Your task to perform on an android device: Go to display settings Image 0: 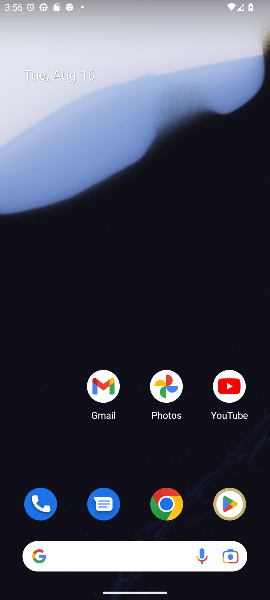
Step 0: drag from (140, 475) to (137, 7)
Your task to perform on an android device: Go to display settings Image 1: 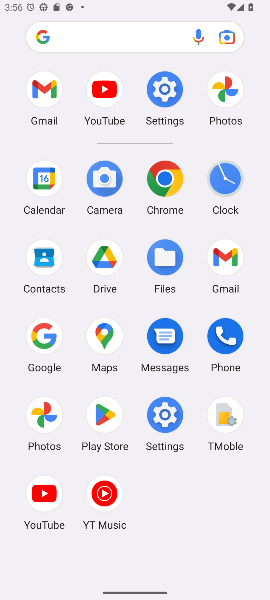
Step 1: click (164, 86)
Your task to perform on an android device: Go to display settings Image 2: 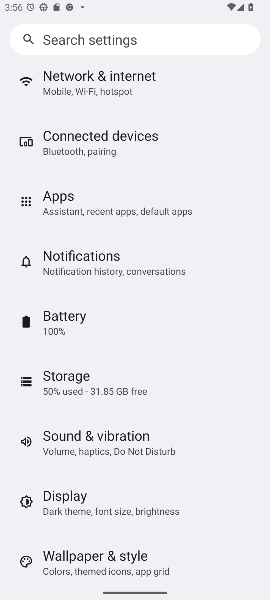
Step 2: click (71, 499)
Your task to perform on an android device: Go to display settings Image 3: 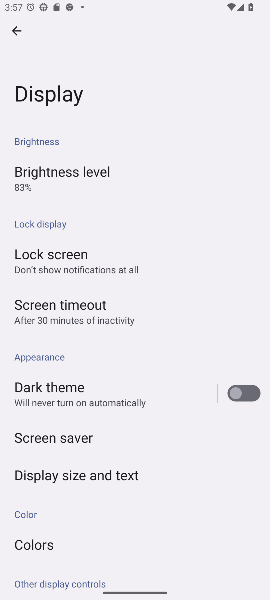
Step 3: task complete